Your task to perform on an android device: visit the assistant section in the google photos Image 0: 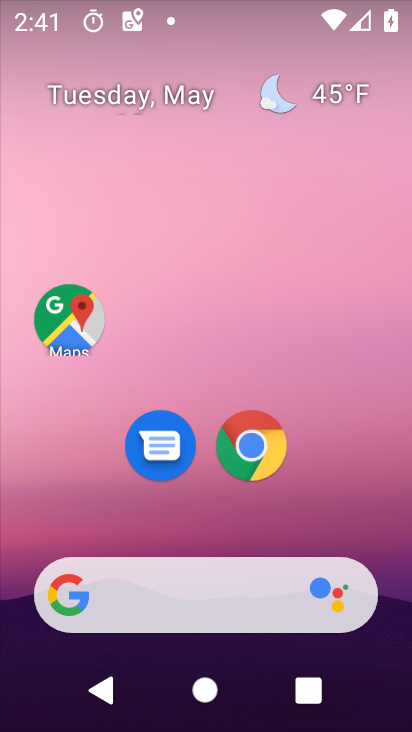
Step 0: drag from (192, 517) to (291, 58)
Your task to perform on an android device: visit the assistant section in the google photos Image 1: 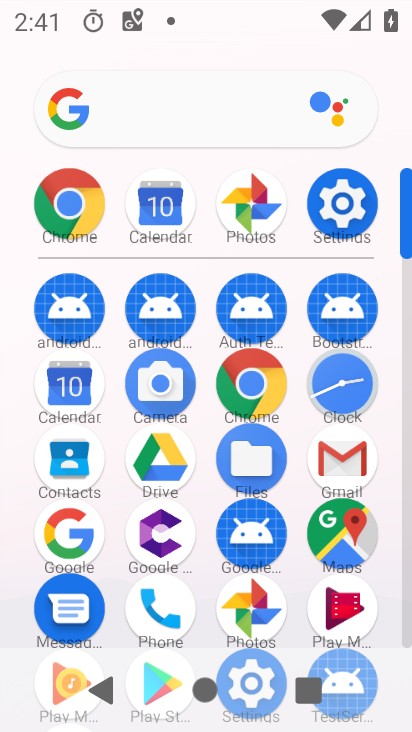
Step 1: click (255, 613)
Your task to perform on an android device: visit the assistant section in the google photos Image 2: 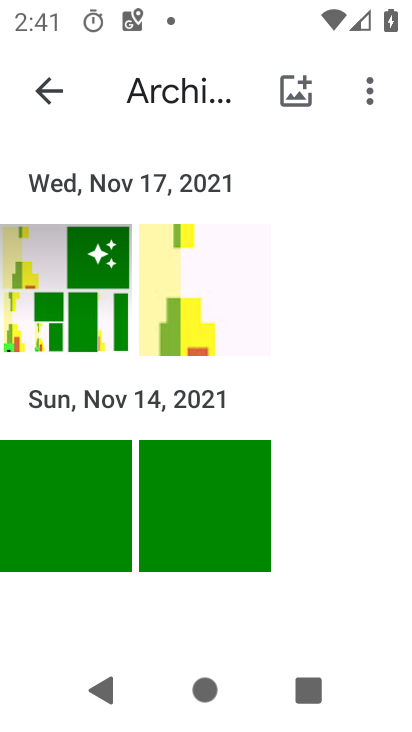
Step 2: click (49, 98)
Your task to perform on an android device: visit the assistant section in the google photos Image 3: 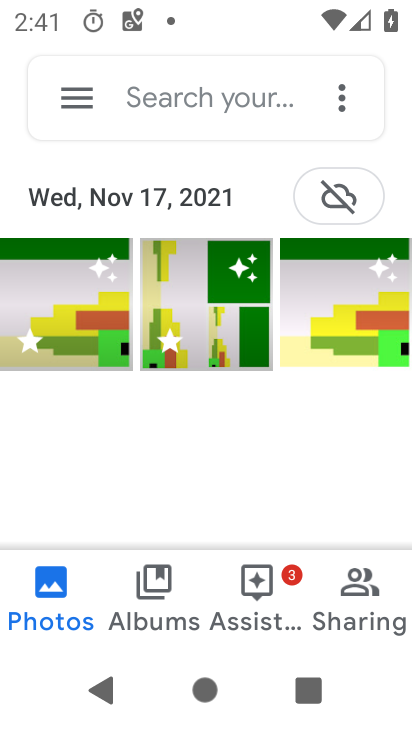
Step 3: click (228, 617)
Your task to perform on an android device: visit the assistant section in the google photos Image 4: 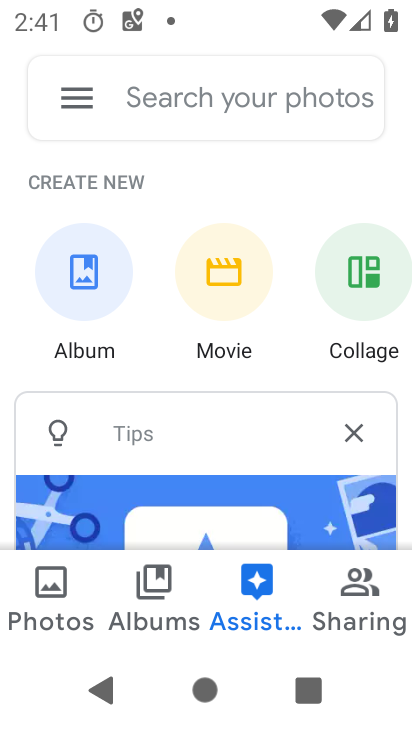
Step 4: task complete